Your task to perform on an android device: turn notification dots off Image 0: 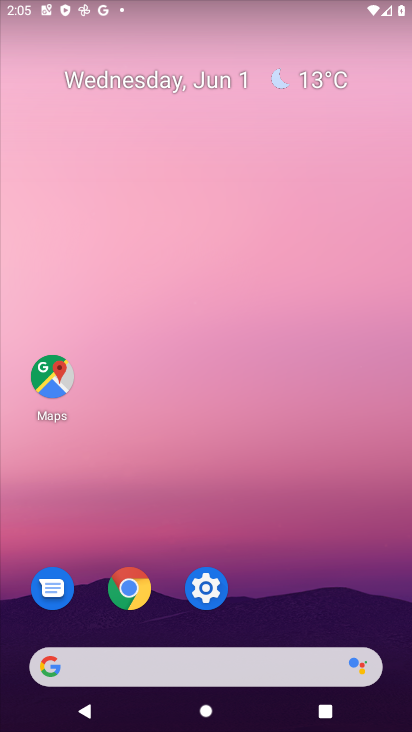
Step 0: click (202, 596)
Your task to perform on an android device: turn notification dots off Image 1: 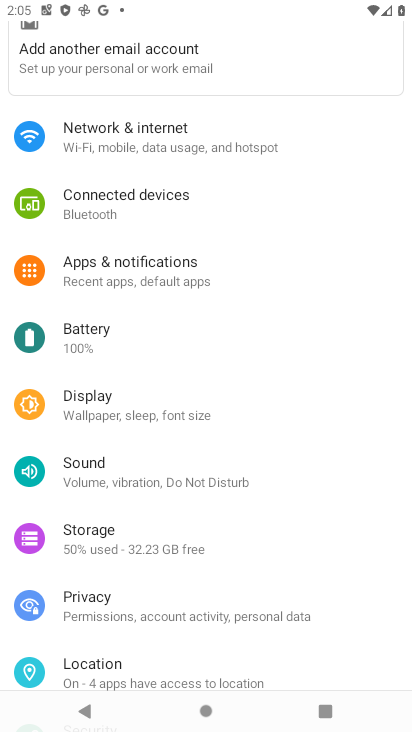
Step 1: drag from (141, 154) to (142, 199)
Your task to perform on an android device: turn notification dots off Image 2: 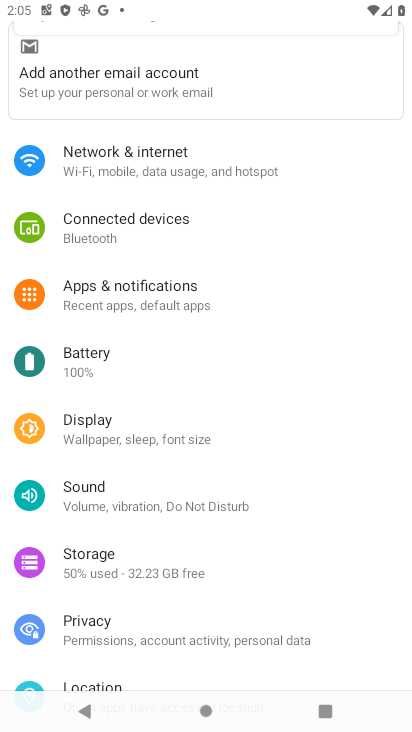
Step 2: drag from (118, 124) to (116, 184)
Your task to perform on an android device: turn notification dots off Image 3: 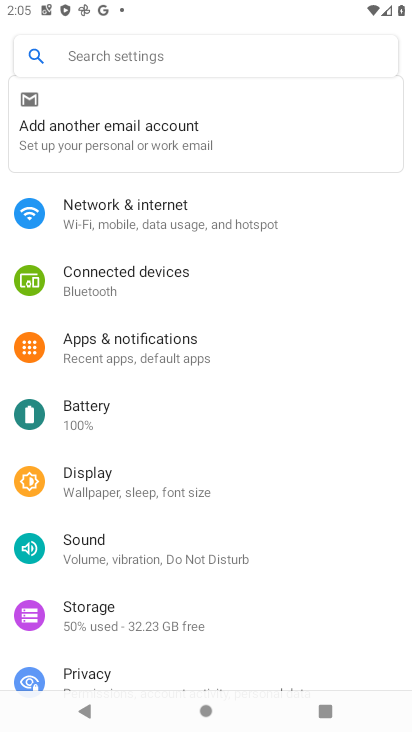
Step 3: click (91, 52)
Your task to perform on an android device: turn notification dots off Image 4: 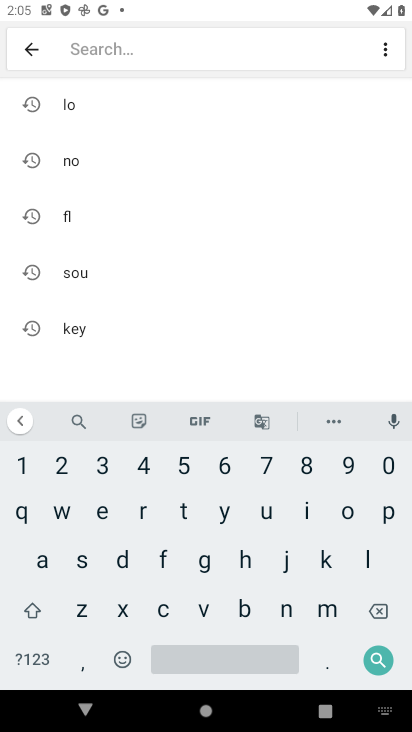
Step 4: click (127, 557)
Your task to perform on an android device: turn notification dots off Image 5: 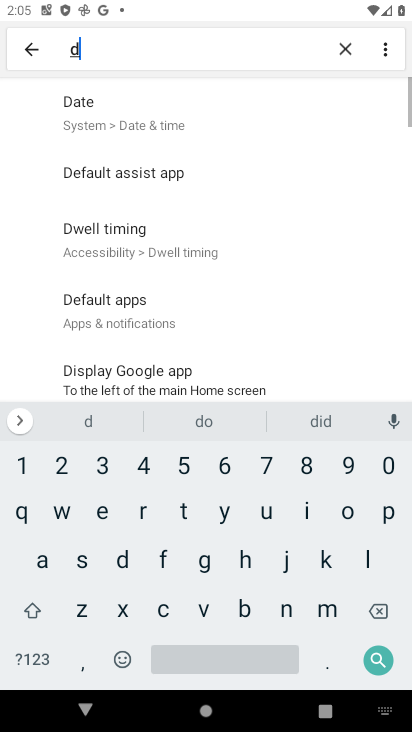
Step 5: click (346, 510)
Your task to perform on an android device: turn notification dots off Image 6: 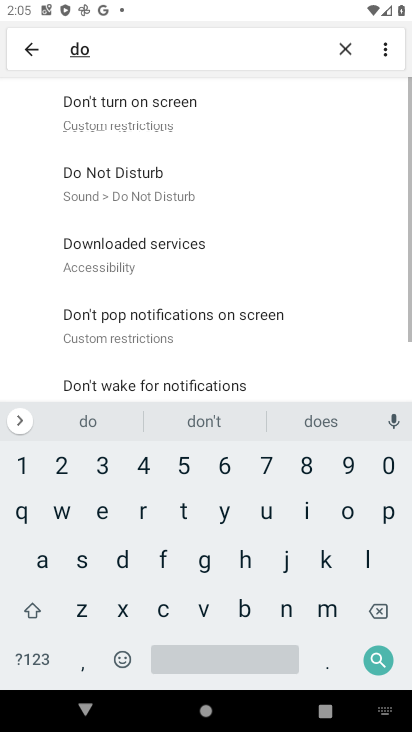
Step 6: click (187, 509)
Your task to perform on an android device: turn notification dots off Image 7: 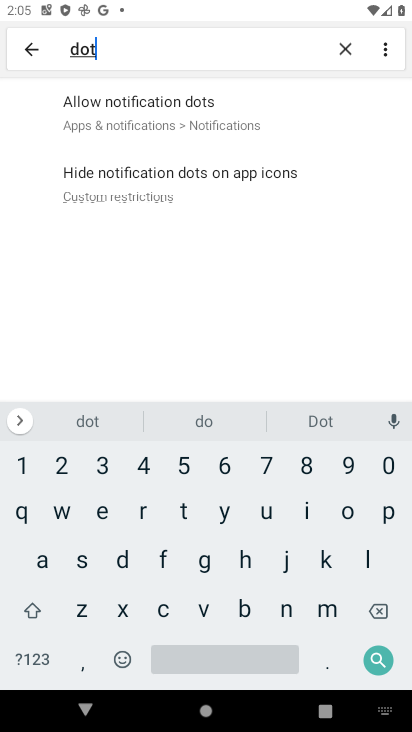
Step 7: click (184, 122)
Your task to perform on an android device: turn notification dots off Image 8: 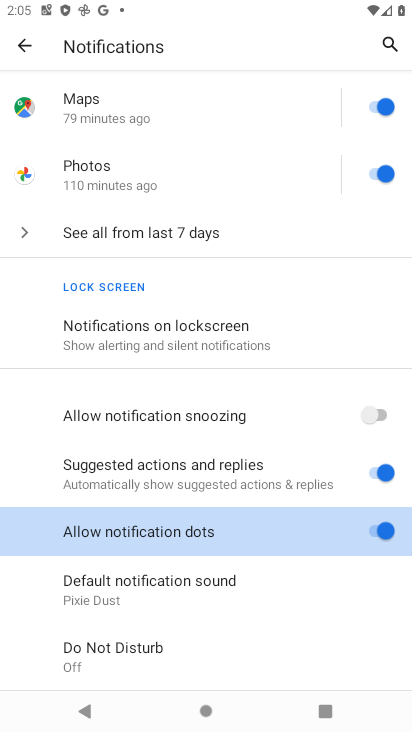
Step 8: click (313, 534)
Your task to perform on an android device: turn notification dots off Image 9: 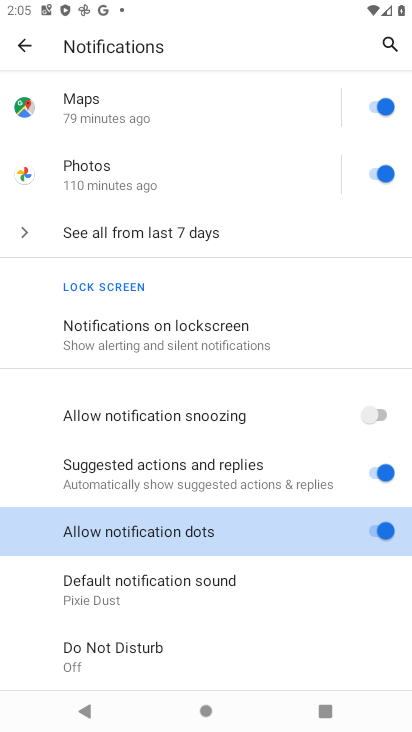
Step 9: click (379, 529)
Your task to perform on an android device: turn notification dots off Image 10: 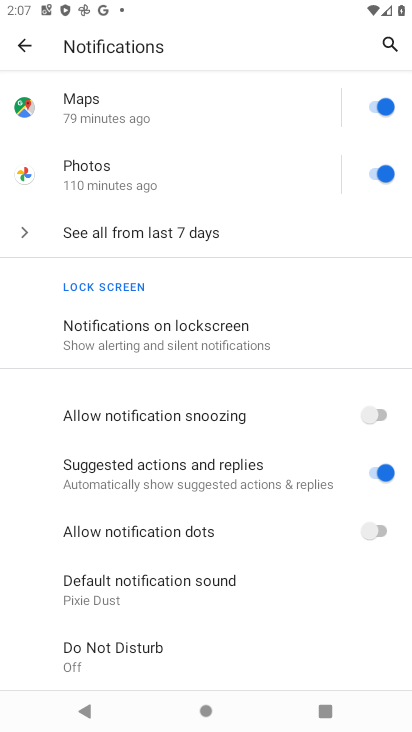
Step 10: task complete